Your task to perform on an android device: Search for Italian restaurants on Maps Image 0: 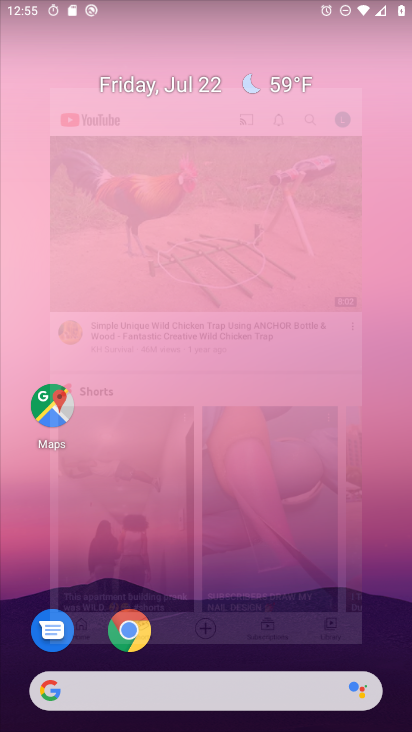
Step 0: press home button
Your task to perform on an android device: Search for Italian restaurants on Maps Image 1: 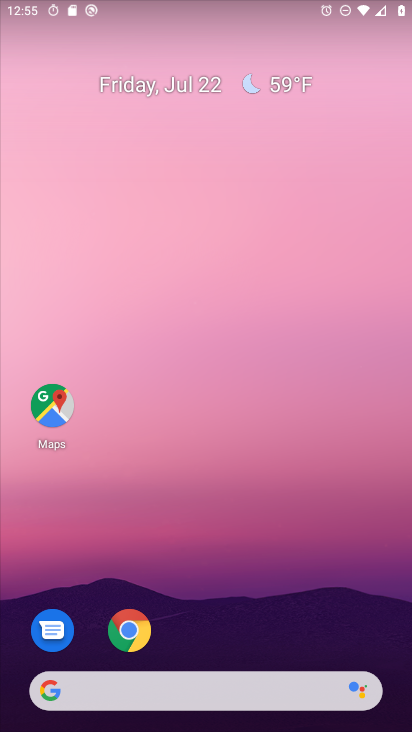
Step 1: drag from (254, 670) to (335, 3)
Your task to perform on an android device: Search for Italian restaurants on Maps Image 2: 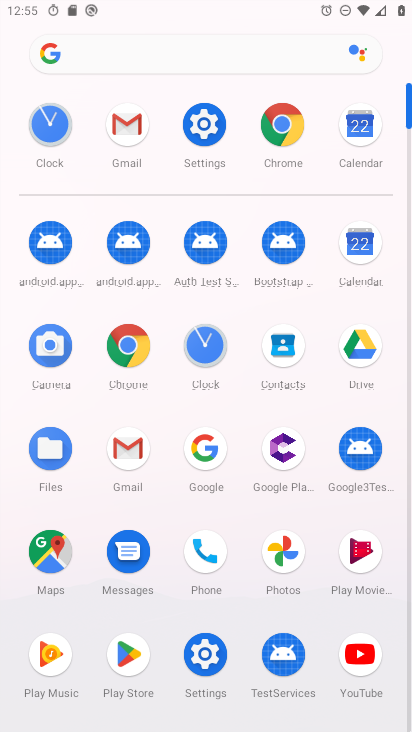
Step 2: click (45, 551)
Your task to perform on an android device: Search for Italian restaurants on Maps Image 3: 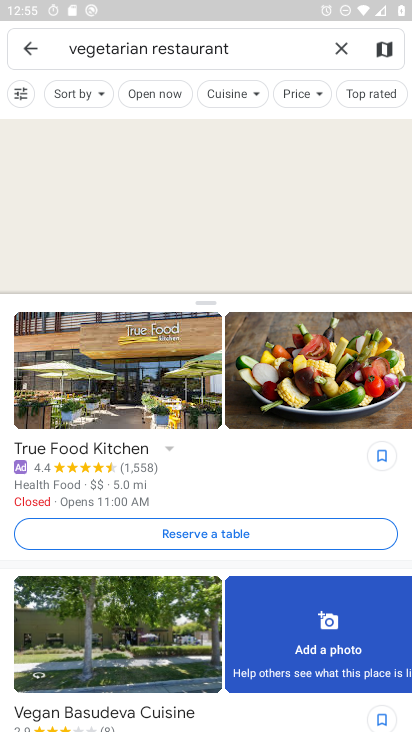
Step 3: click (344, 53)
Your task to perform on an android device: Search for Italian restaurants on Maps Image 4: 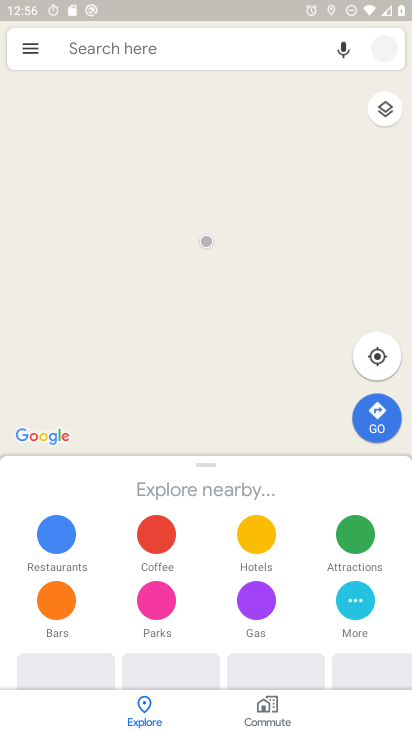
Step 4: click (225, 46)
Your task to perform on an android device: Search for Italian restaurants on Maps Image 5: 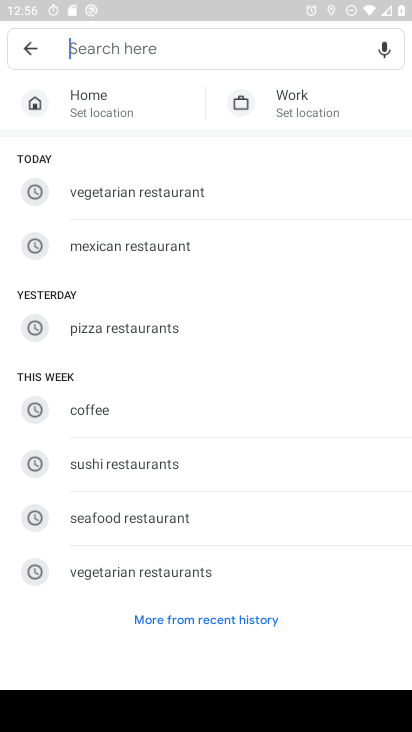
Step 5: type "Italian restaurants "
Your task to perform on an android device: Search for Italian restaurants on Maps Image 6: 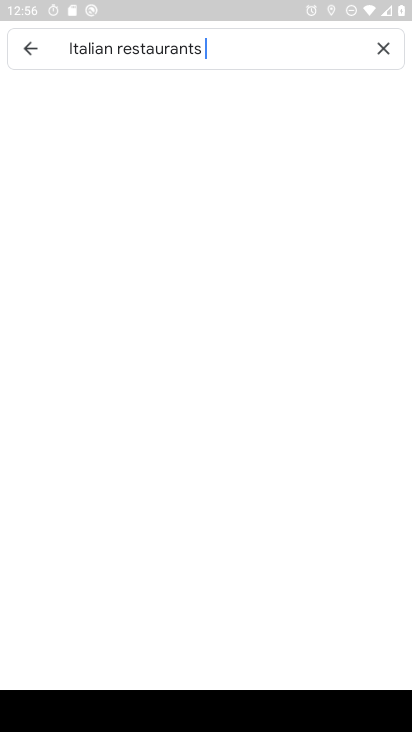
Step 6: press enter
Your task to perform on an android device: Search for Italian restaurants on Maps Image 7: 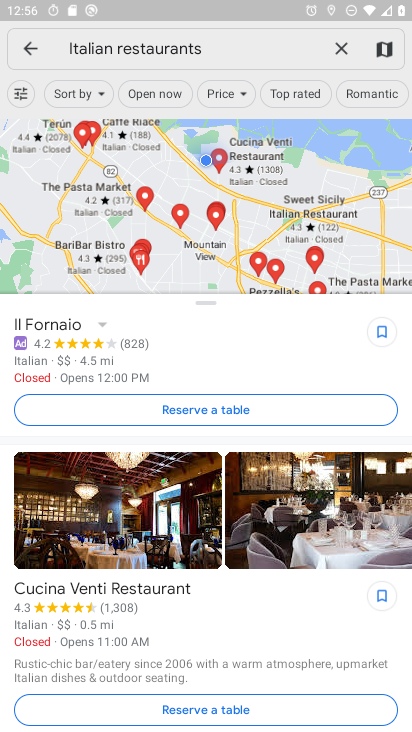
Step 7: task complete